Your task to perform on an android device: Open privacy settings Image 0: 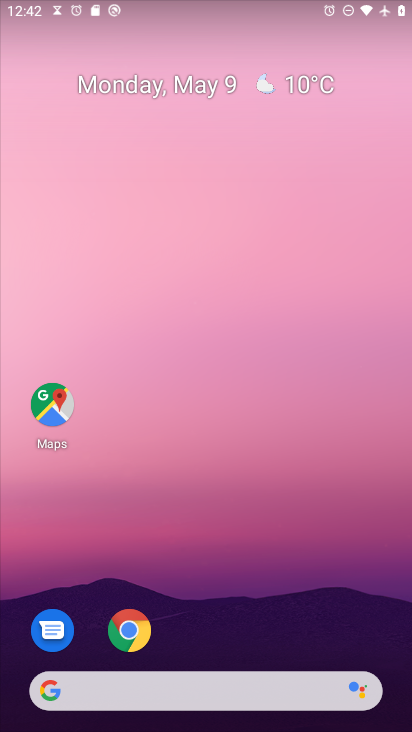
Step 0: drag from (232, 665) to (364, 107)
Your task to perform on an android device: Open privacy settings Image 1: 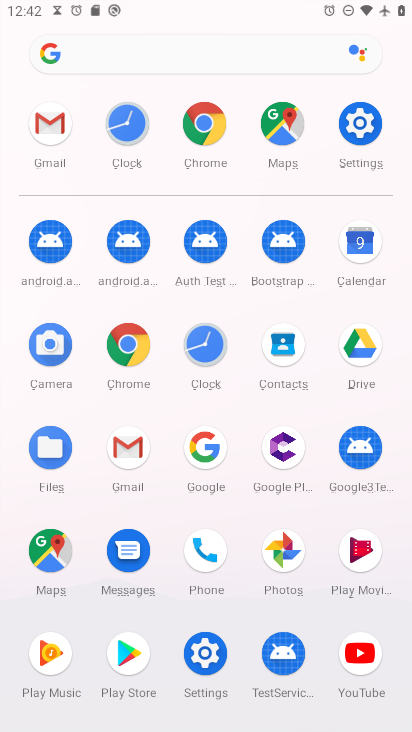
Step 1: click (354, 120)
Your task to perform on an android device: Open privacy settings Image 2: 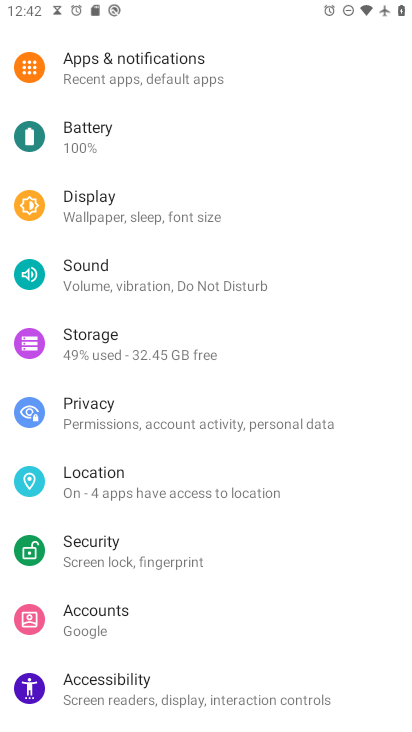
Step 2: click (122, 419)
Your task to perform on an android device: Open privacy settings Image 3: 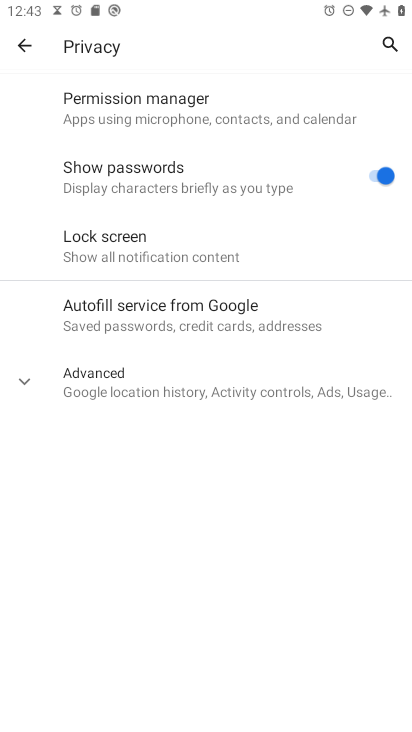
Step 3: task complete